Your task to perform on an android device: turn on improve location accuracy Image 0: 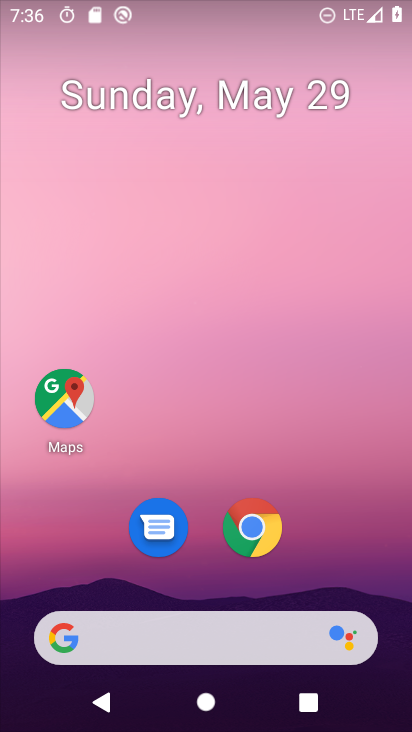
Step 0: drag from (388, 601) to (308, 10)
Your task to perform on an android device: turn on improve location accuracy Image 1: 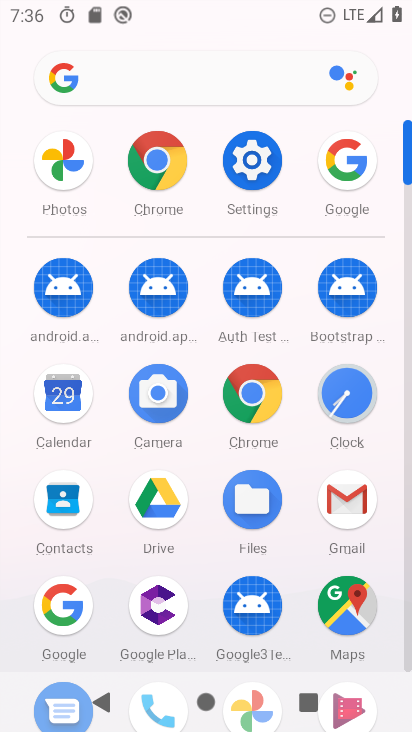
Step 1: click (247, 153)
Your task to perform on an android device: turn on improve location accuracy Image 2: 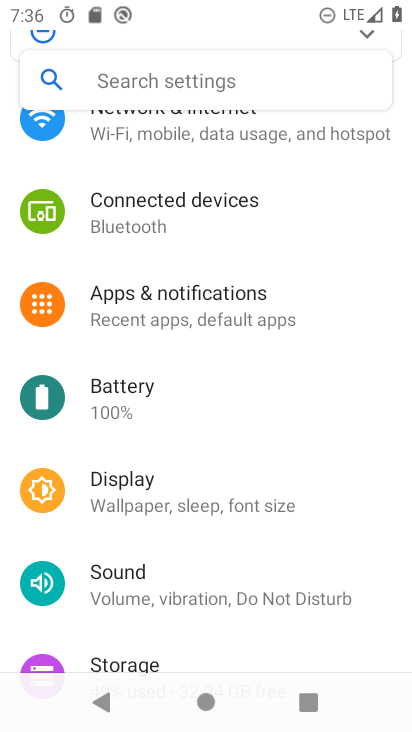
Step 2: drag from (163, 622) to (209, 299)
Your task to perform on an android device: turn on improve location accuracy Image 3: 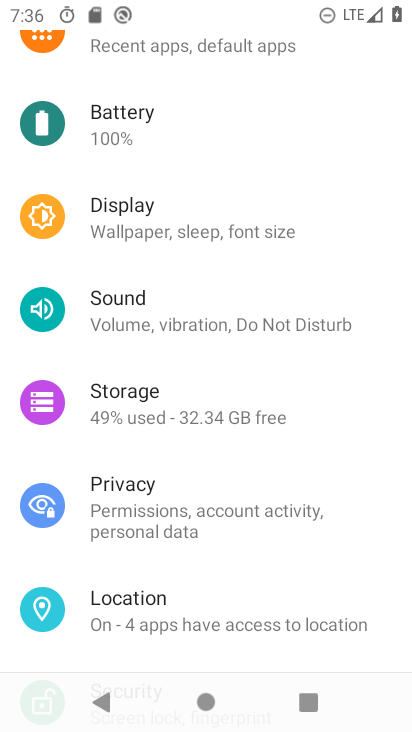
Step 3: click (144, 600)
Your task to perform on an android device: turn on improve location accuracy Image 4: 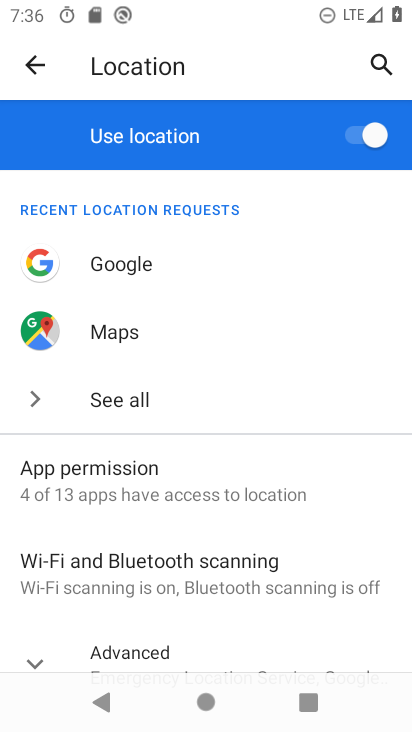
Step 4: drag from (152, 629) to (205, 279)
Your task to perform on an android device: turn on improve location accuracy Image 5: 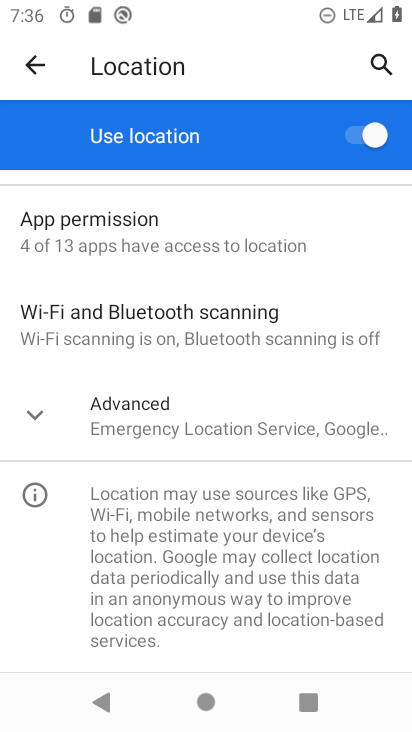
Step 5: click (114, 410)
Your task to perform on an android device: turn on improve location accuracy Image 6: 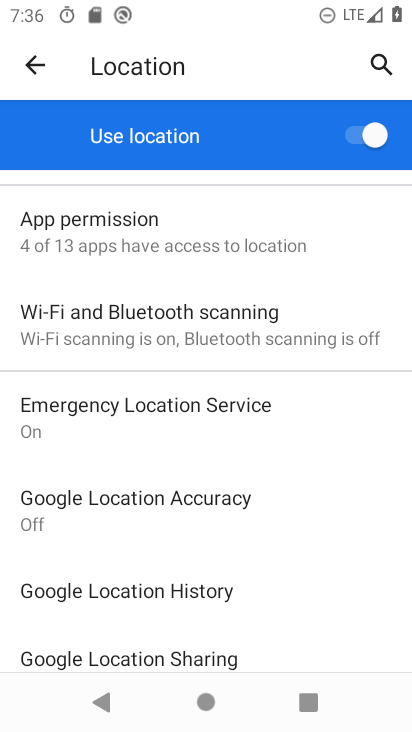
Step 6: click (161, 501)
Your task to perform on an android device: turn on improve location accuracy Image 7: 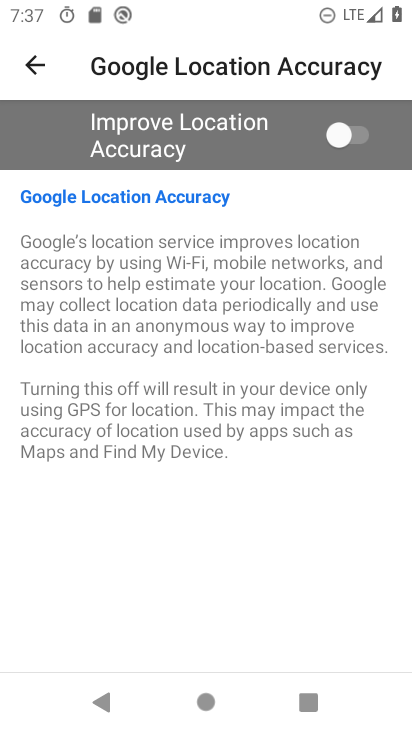
Step 7: click (360, 124)
Your task to perform on an android device: turn on improve location accuracy Image 8: 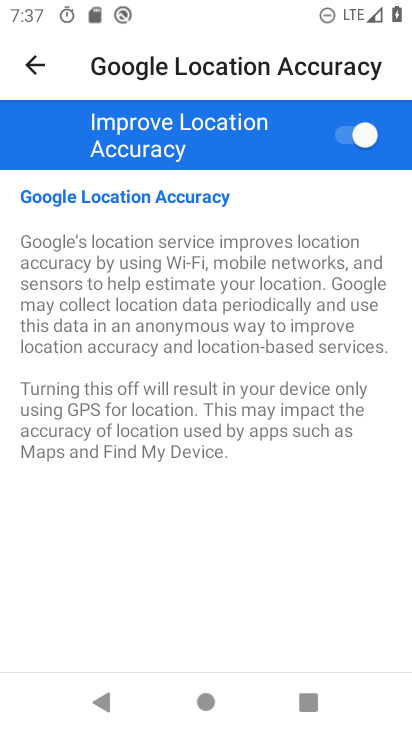
Step 8: task complete